Your task to perform on an android device: manage bookmarks in the chrome app Image 0: 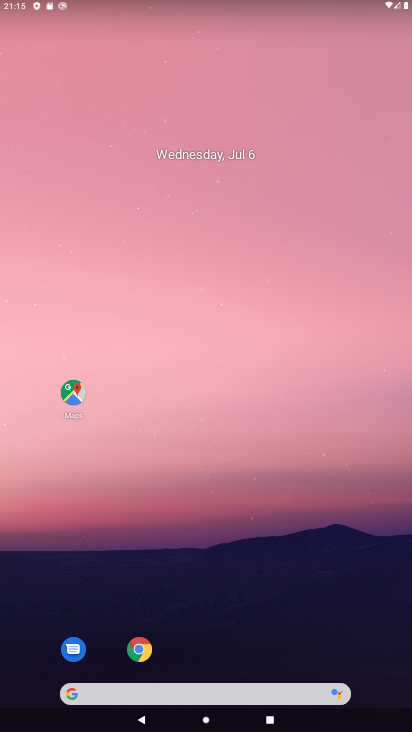
Step 0: drag from (174, 560) to (226, 202)
Your task to perform on an android device: manage bookmarks in the chrome app Image 1: 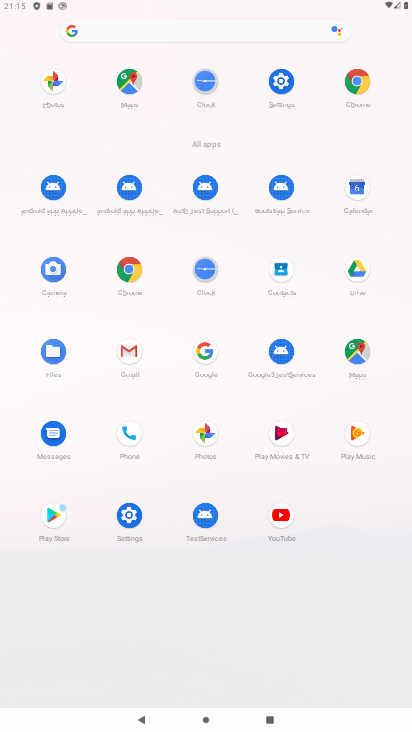
Step 1: click (127, 274)
Your task to perform on an android device: manage bookmarks in the chrome app Image 2: 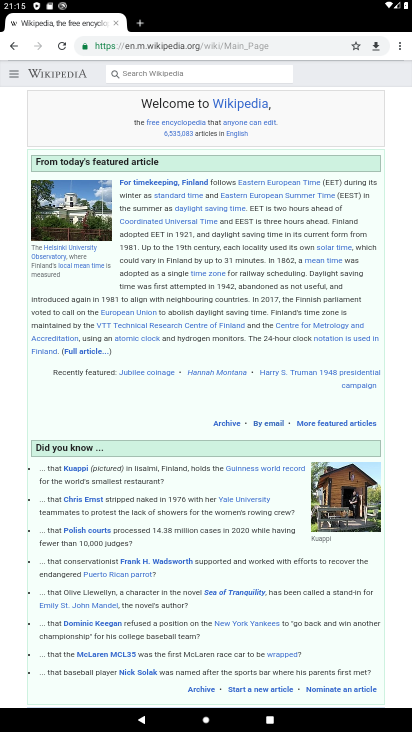
Step 2: drag from (180, 500) to (259, 229)
Your task to perform on an android device: manage bookmarks in the chrome app Image 3: 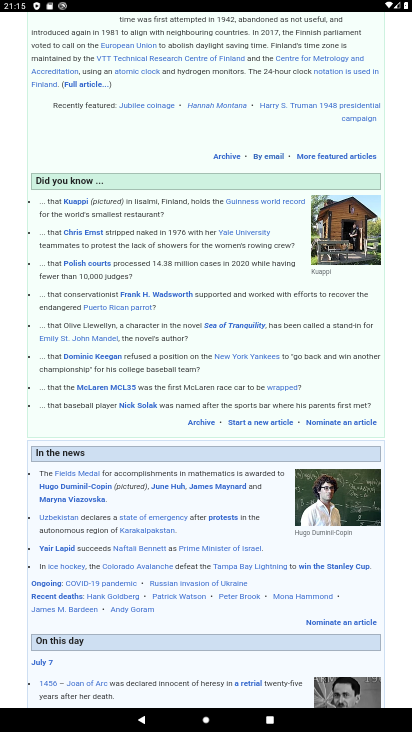
Step 3: drag from (185, 447) to (240, 226)
Your task to perform on an android device: manage bookmarks in the chrome app Image 4: 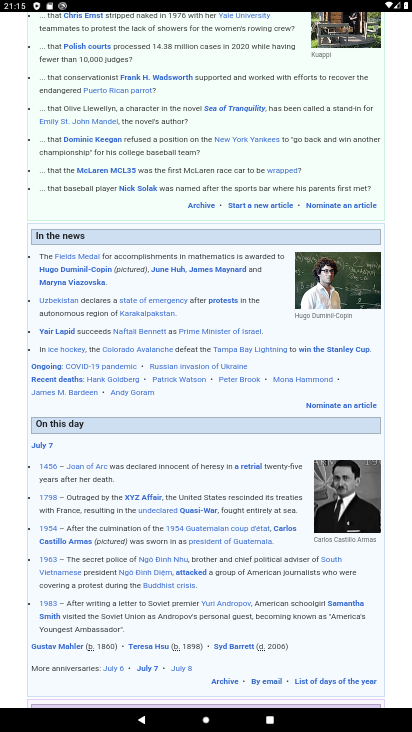
Step 4: drag from (315, 129) to (299, 668)
Your task to perform on an android device: manage bookmarks in the chrome app Image 5: 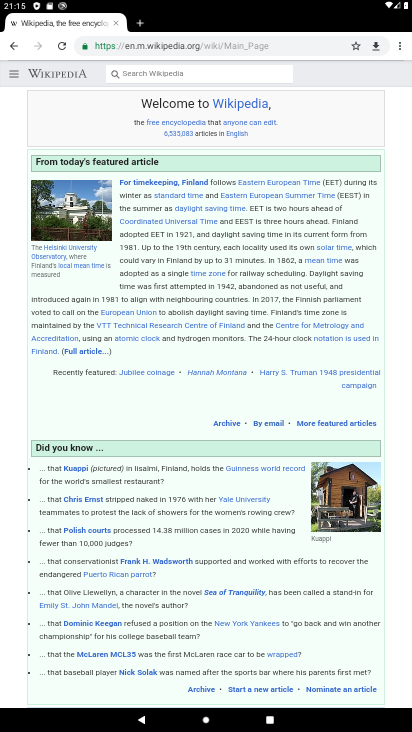
Step 5: drag from (289, 179) to (320, 607)
Your task to perform on an android device: manage bookmarks in the chrome app Image 6: 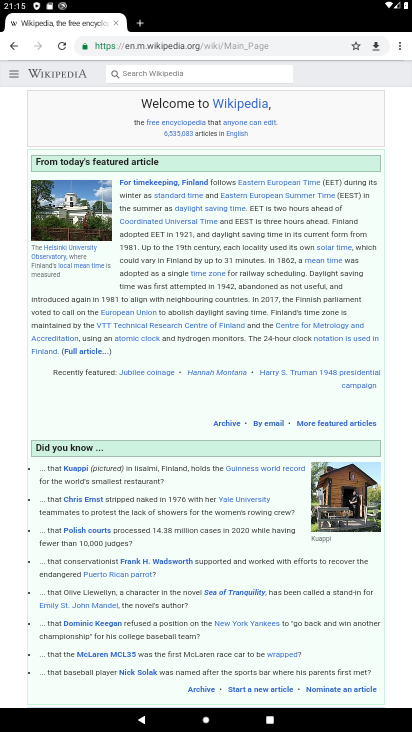
Step 6: click (394, 41)
Your task to perform on an android device: manage bookmarks in the chrome app Image 7: 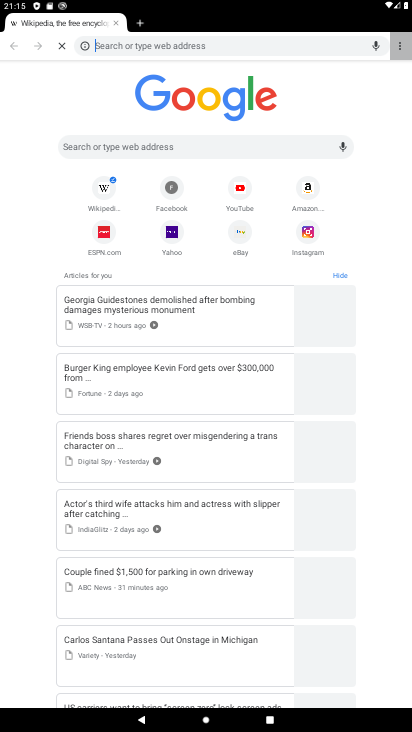
Step 7: click (402, 56)
Your task to perform on an android device: manage bookmarks in the chrome app Image 8: 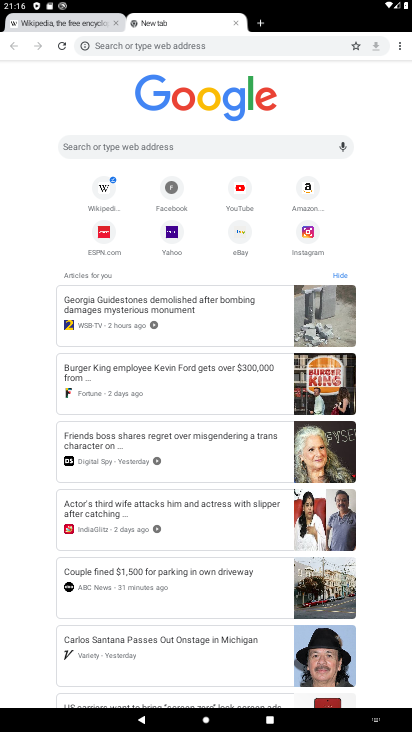
Step 8: click (395, 50)
Your task to perform on an android device: manage bookmarks in the chrome app Image 9: 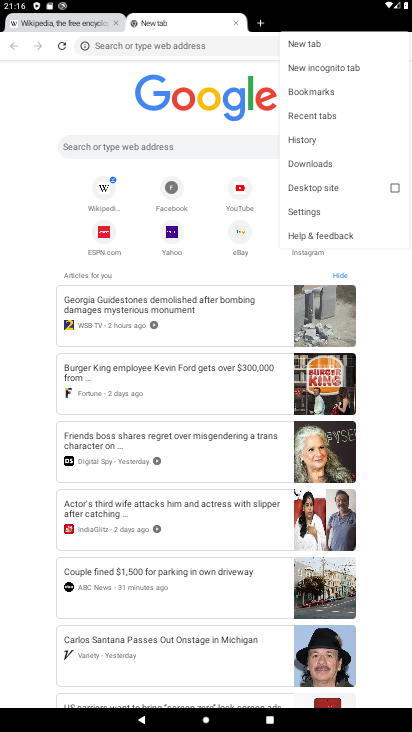
Step 9: click (319, 93)
Your task to perform on an android device: manage bookmarks in the chrome app Image 10: 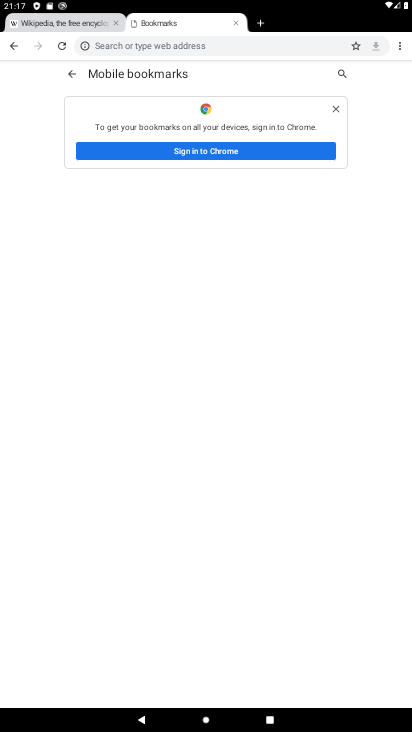
Step 10: click (273, 177)
Your task to perform on an android device: manage bookmarks in the chrome app Image 11: 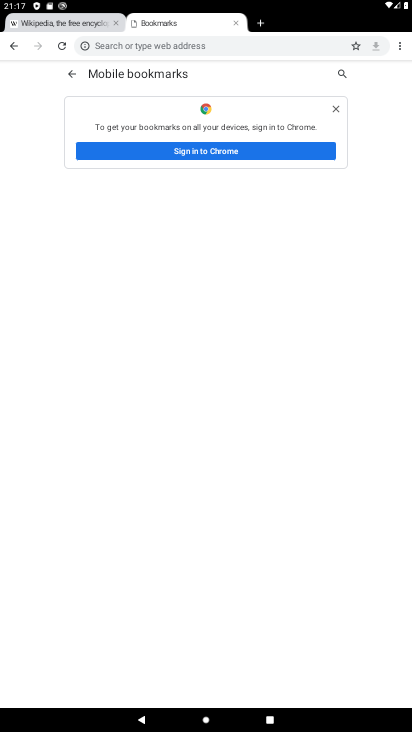
Step 11: task complete